Your task to perform on an android device: check the backup settings in the google photos Image 0: 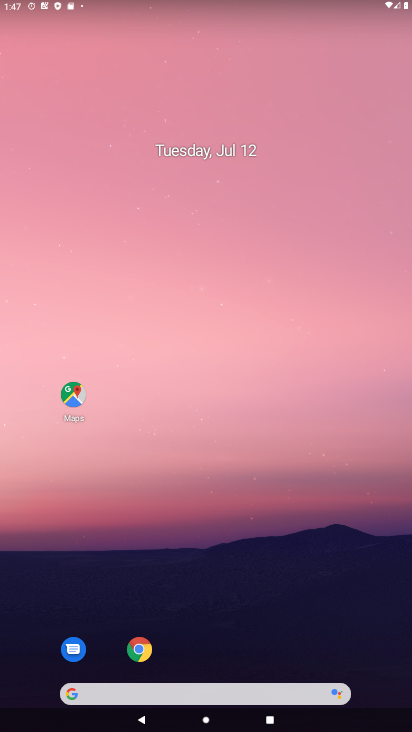
Step 0: drag from (372, 693) to (280, 70)
Your task to perform on an android device: check the backup settings in the google photos Image 1: 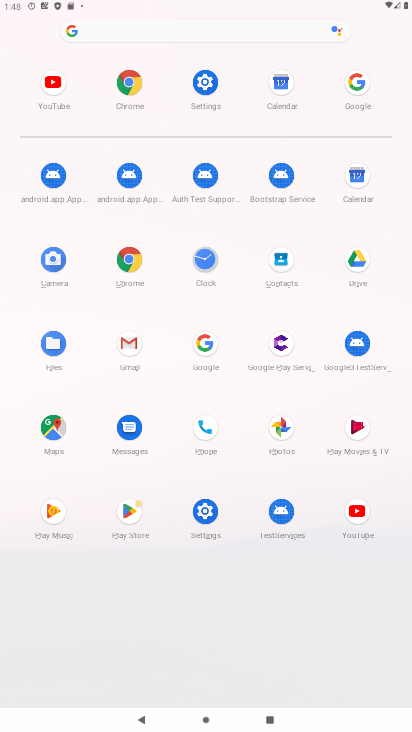
Step 1: click (277, 425)
Your task to perform on an android device: check the backup settings in the google photos Image 2: 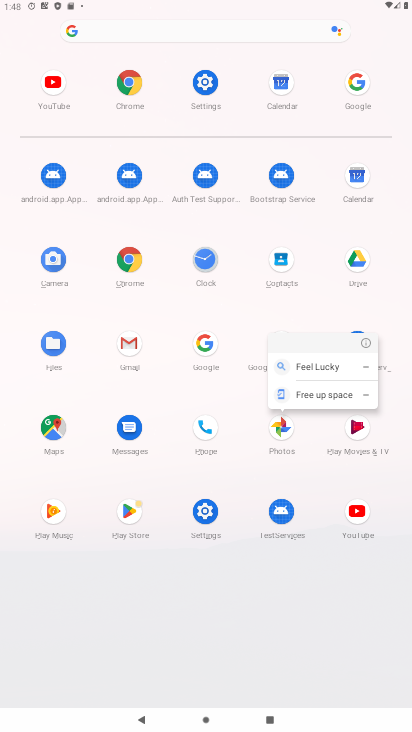
Step 2: click (273, 419)
Your task to perform on an android device: check the backup settings in the google photos Image 3: 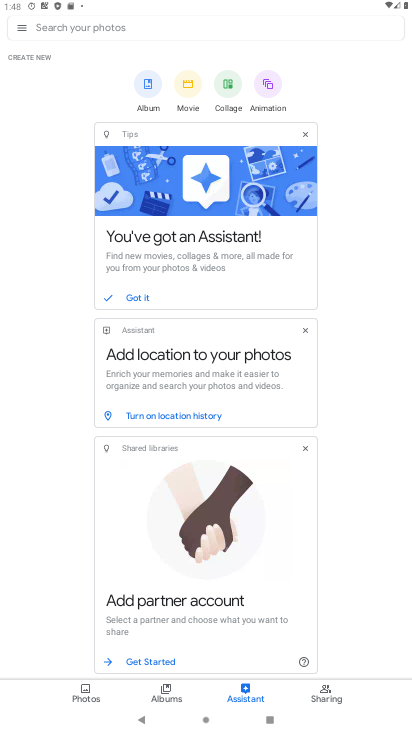
Step 3: click (23, 27)
Your task to perform on an android device: check the backup settings in the google photos Image 4: 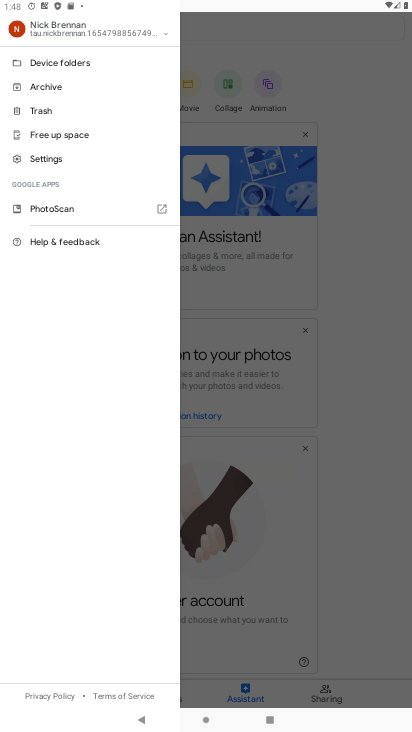
Step 4: click (43, 164)
Your task to perform on an android device: check the backup settings in the google photos Image 5: 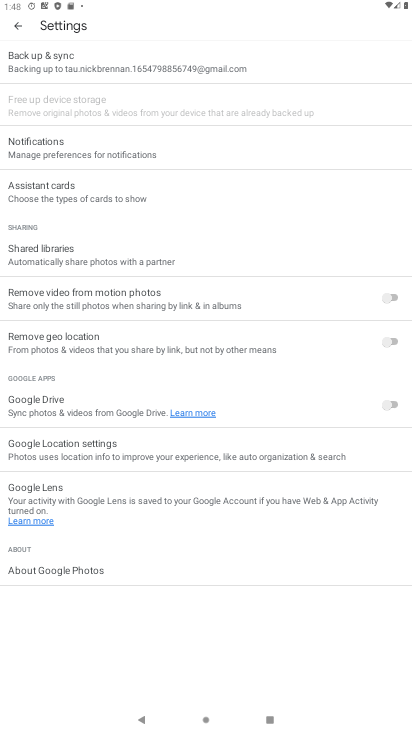
Step 5: click (95, 77)
Your task to perform on an android device: check the backup settings in the google photos Image 6: 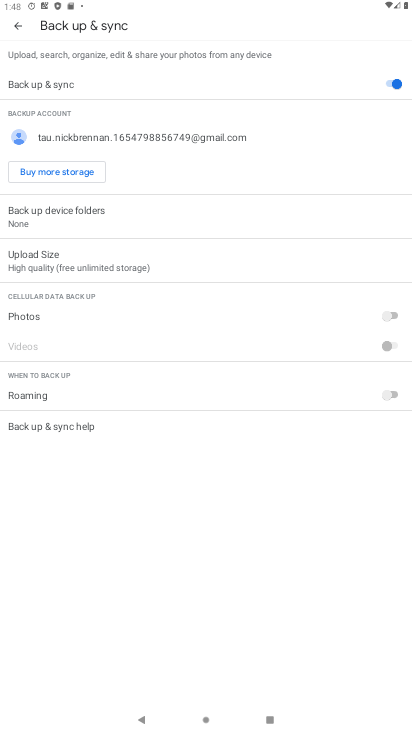
Step 6: task complete